Your task to perform on an android device: Find coffee shops on Maps Image 0: 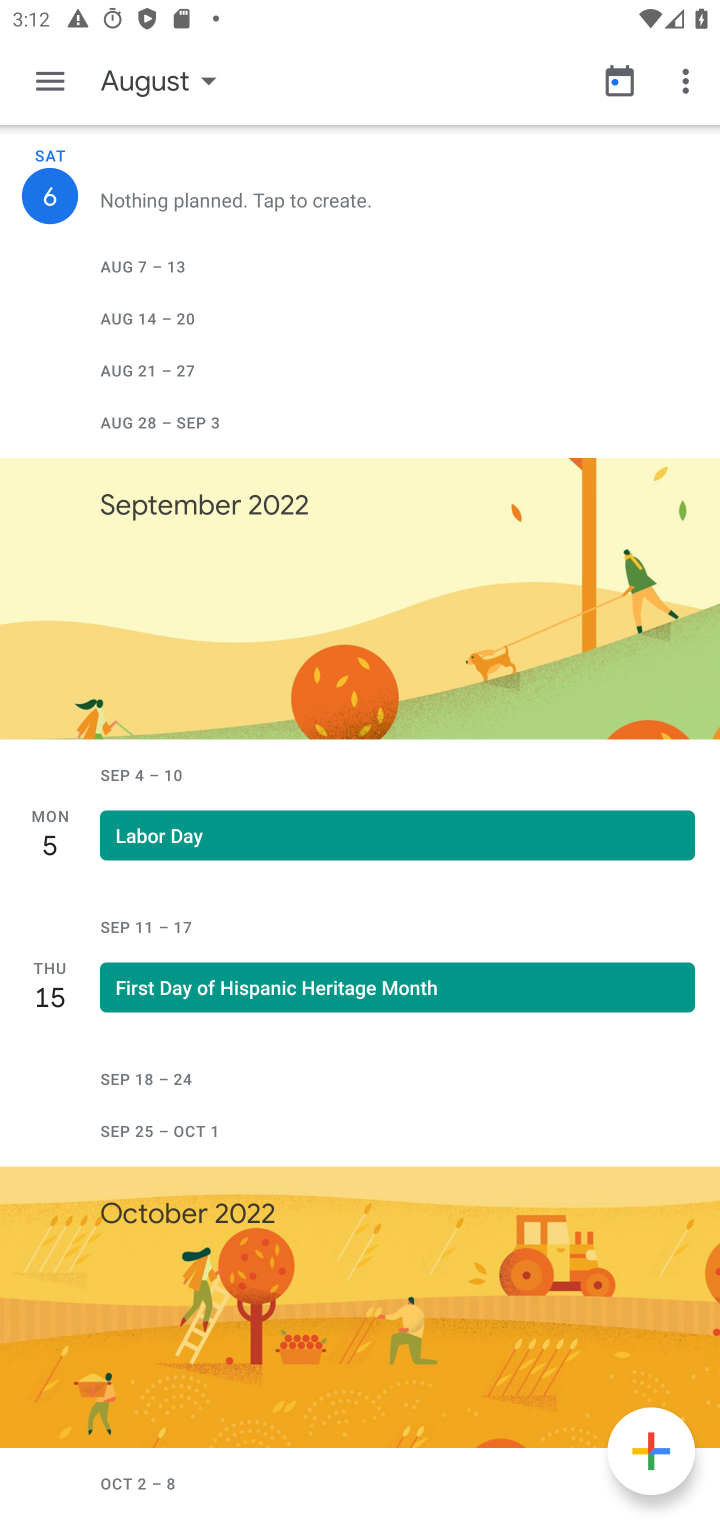
Step 0: press home button
Your task to perform on an android device: Find coffee shops on Maps Image 1: 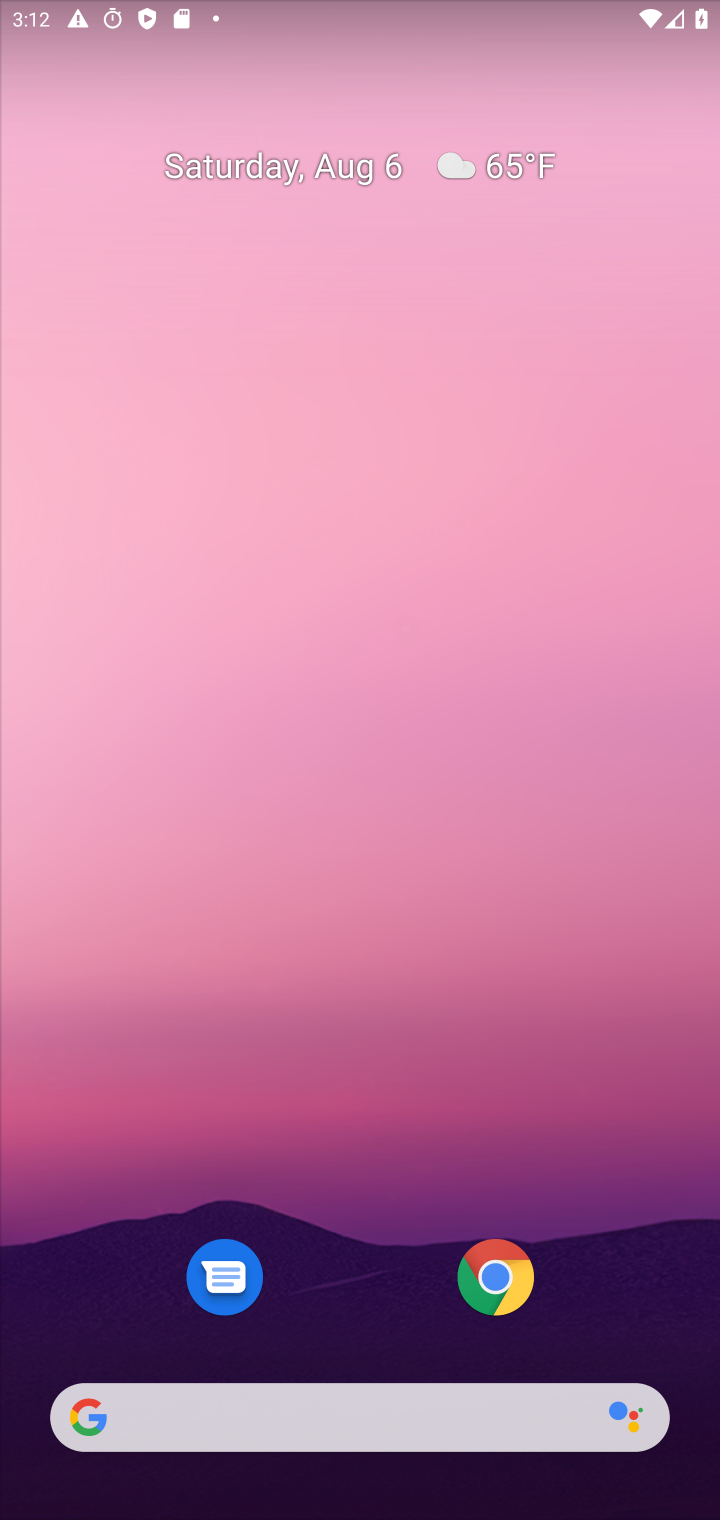
Step 1: drag from (398, 1413) to (373, 273)
Your task to perform on an android device: Find coffee shops on Maps Image 2: 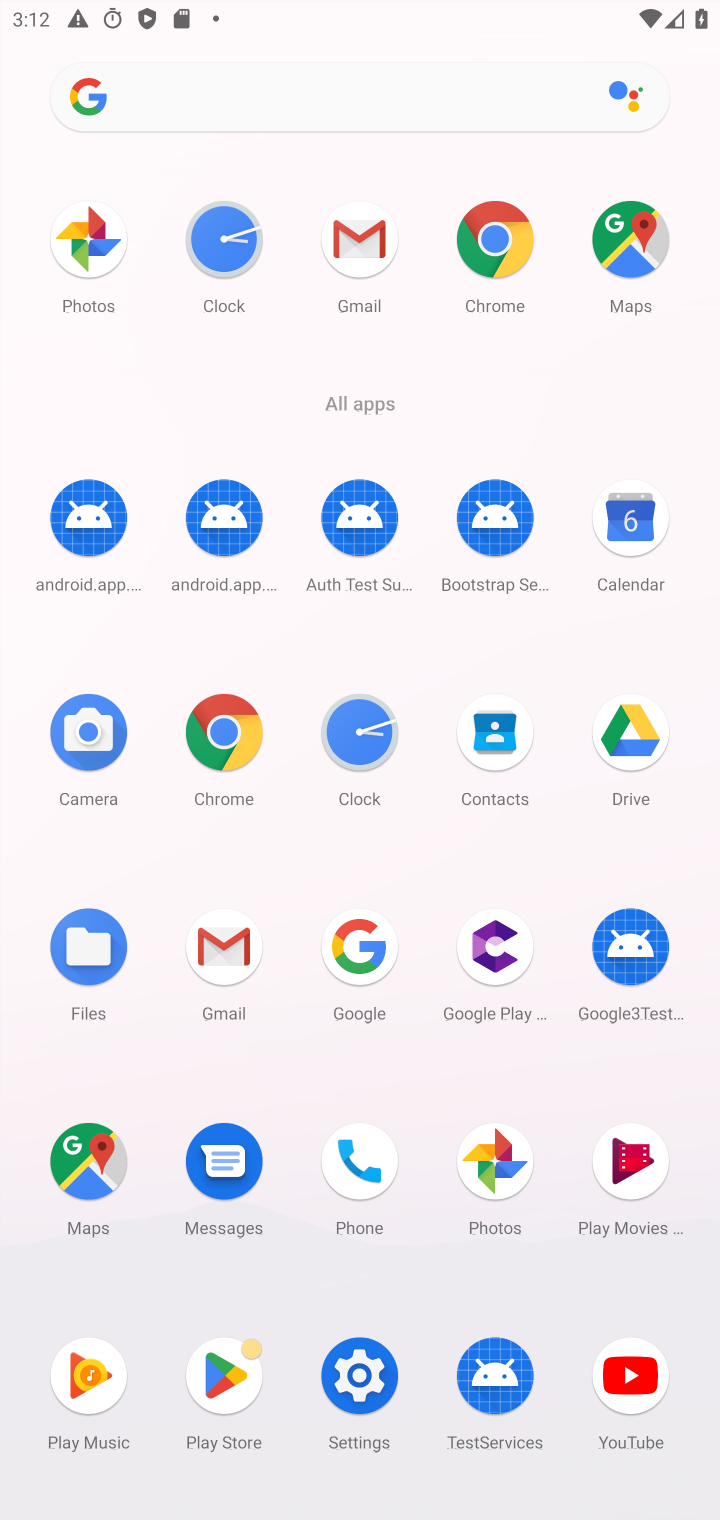
Step 2: click (83, 1164)
Your task to perform on an android device: Find coffee shops on Maps Image 3: 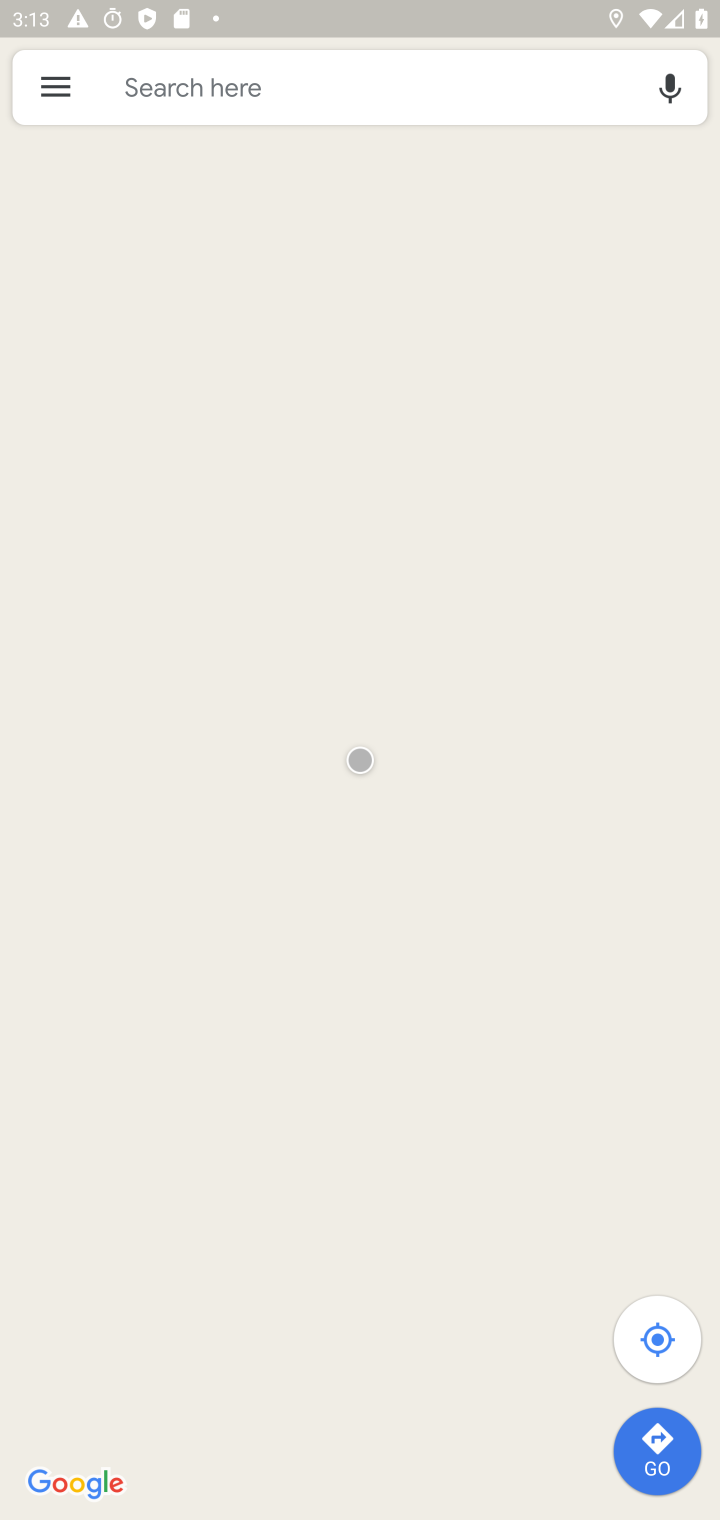
Step 3: click (332, 90)
Your task to perform on an android device: Find coffee shops on Maps Image 4: 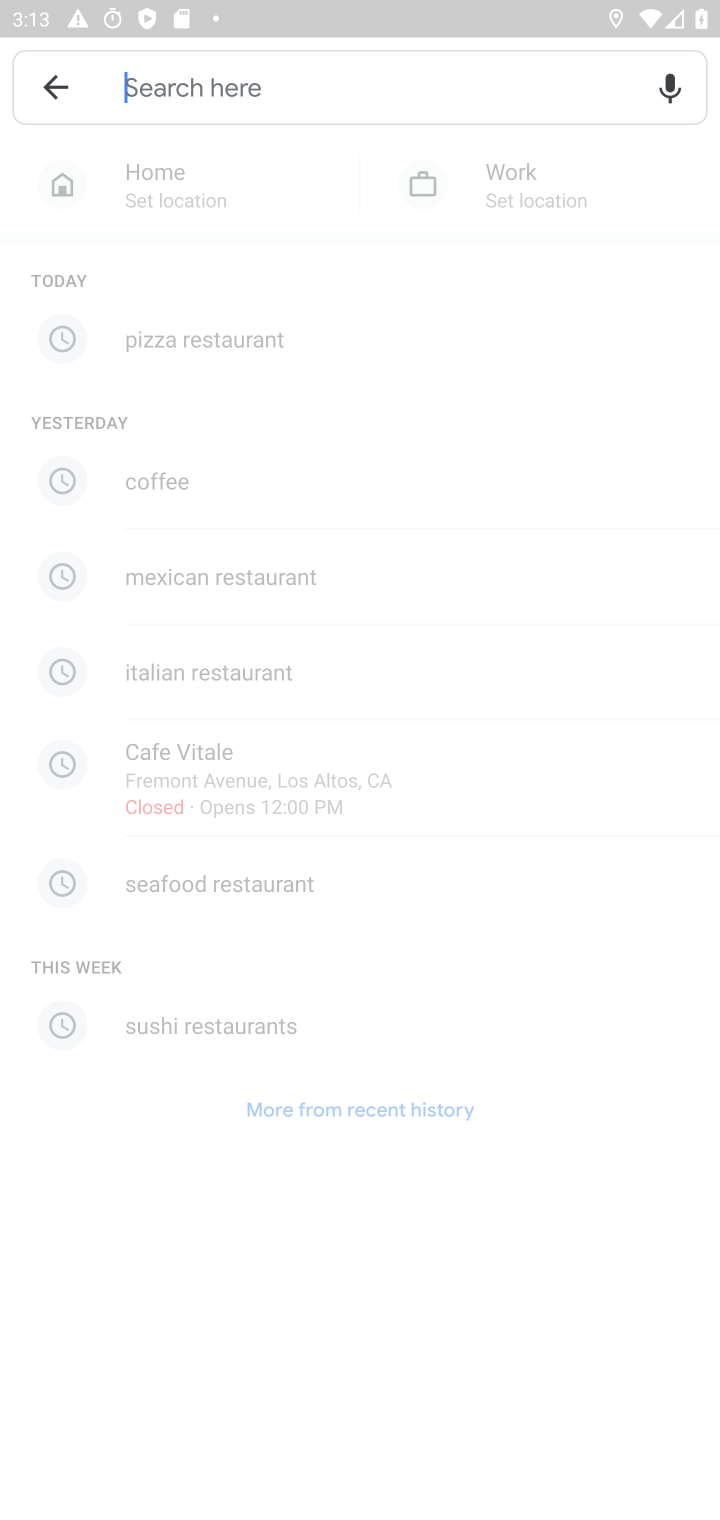
Step 4: click (332, 90)
Your task to perform on an android device: Find coffee shops on Maps Image 5: 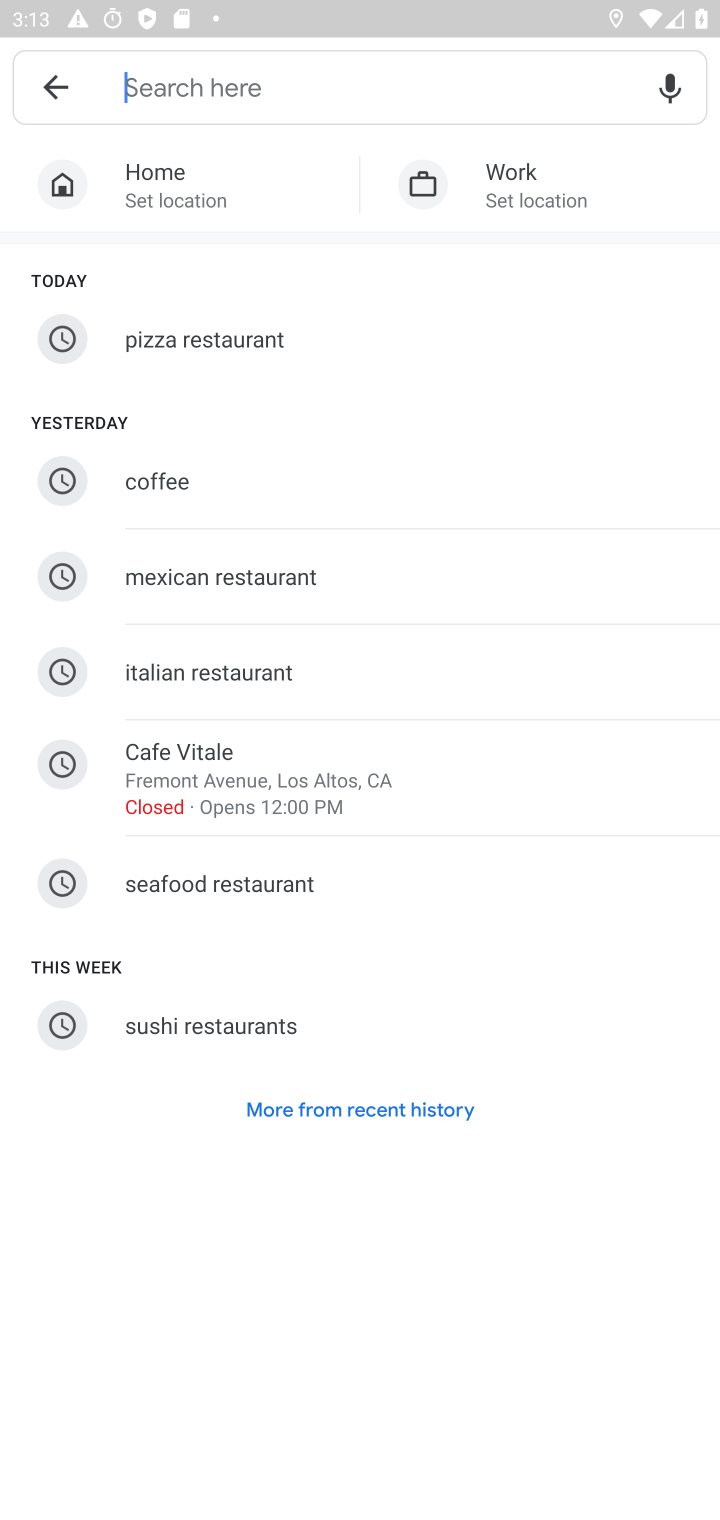
Step 5: click (332, 90)
Your task to perform on an android device: Find coffee shops on Maps Image 6: 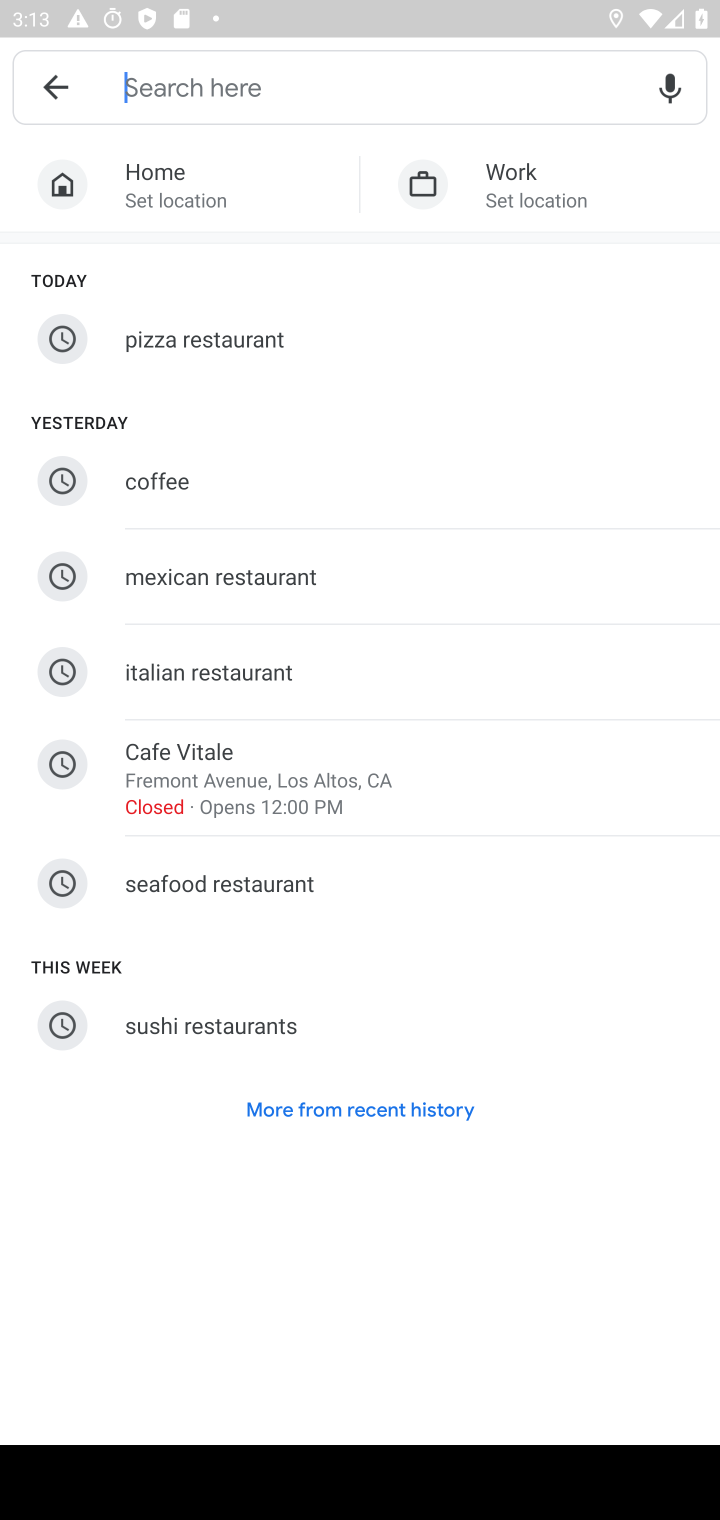
Step 6: type "coffee shops"
Your task to perform on an android device: Find coffee shops on Maps Image 7: 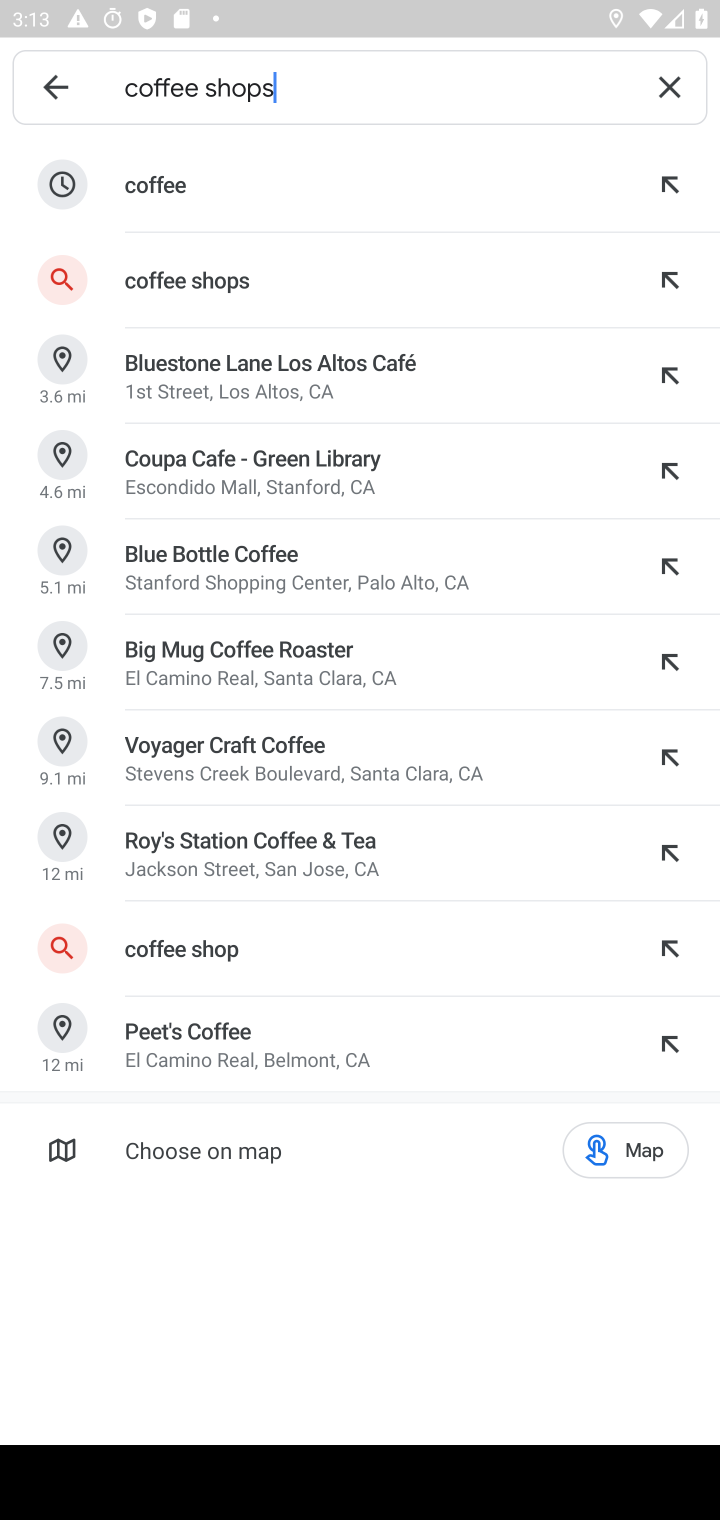
Step 7: click (278, 288)
Your task to perform on an android device: Find coffee shops on Maps Image 8: 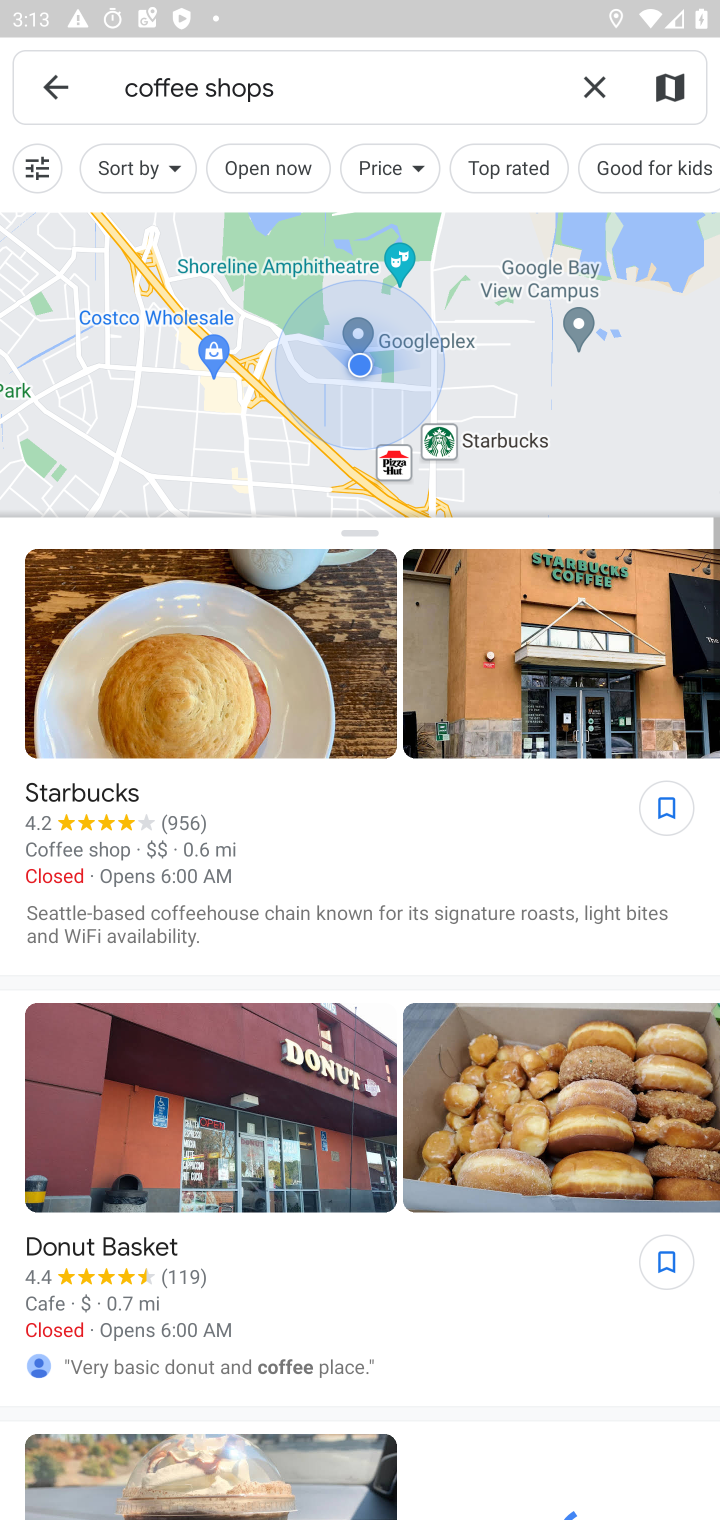
Step 8: task complete